Your task to perform on an android device: Is it going to rain this weekend? Image 0: 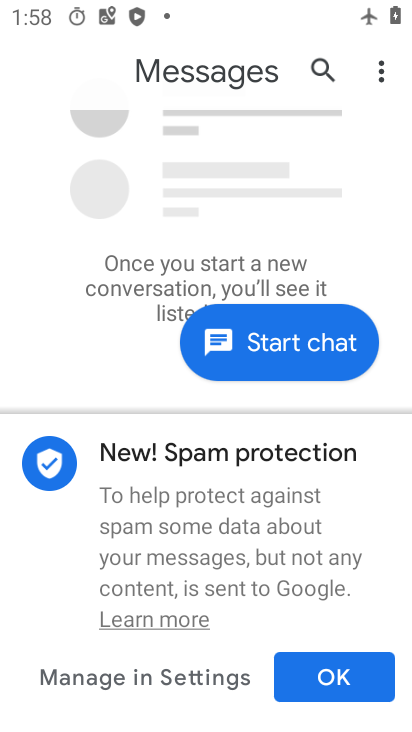
Step 0: press home button
Your task to perform on an android device: Is it going to rain this weekend? Image 1: 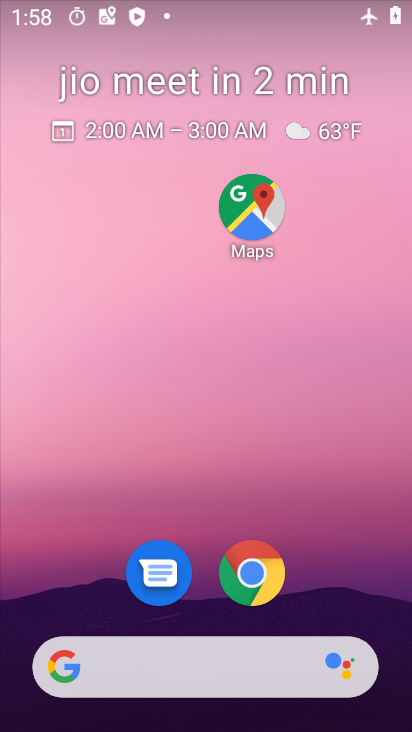
Step 1: drag from (278, 484) to (235, 49)
Your task to perform on an android device: Is it going to rain this weekend? Image 2: 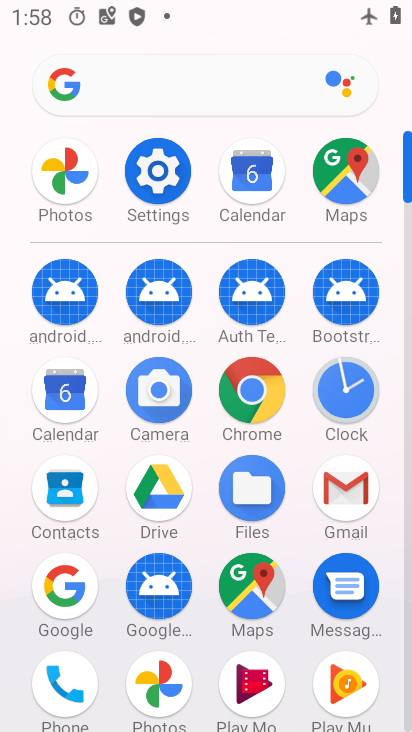
Step 2: click (68, 605)
Your task to perform on an android device: Is it going to rain this weekend? Image 3: 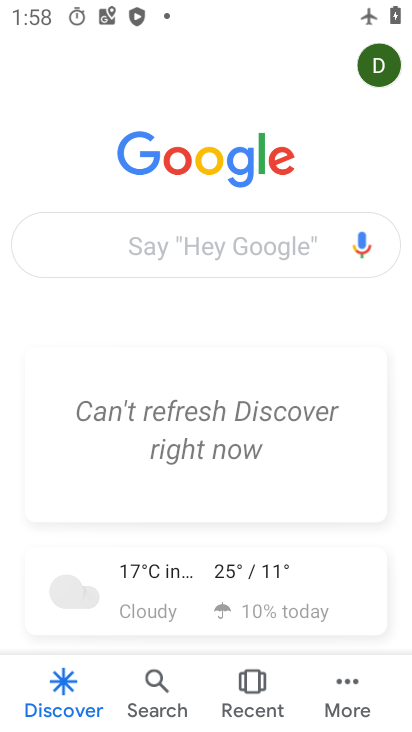
Step 3: task complete